Your task to perform on an android device: turn on airplane mode Image 0: 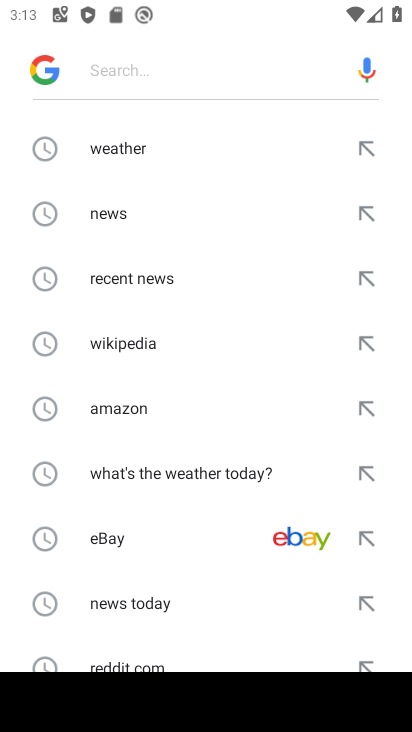
Step 0: press home button
Your task to perform on an android device: turn on airplane mode Image 1: 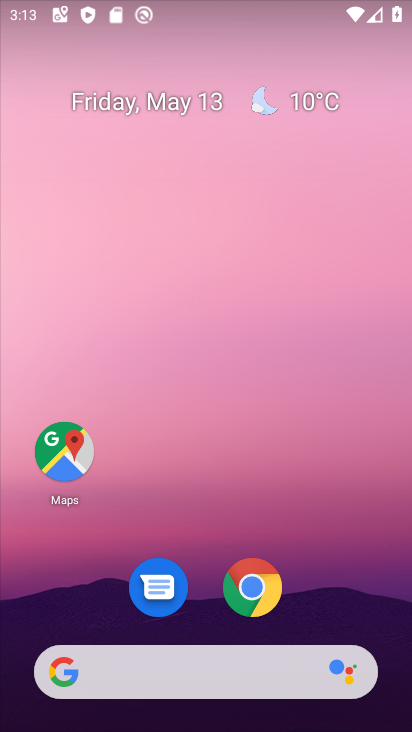
Step 1: drag from (207, 607) to (211, 29)
Your task to perform on an android device: turn on airplane mode Image 2: 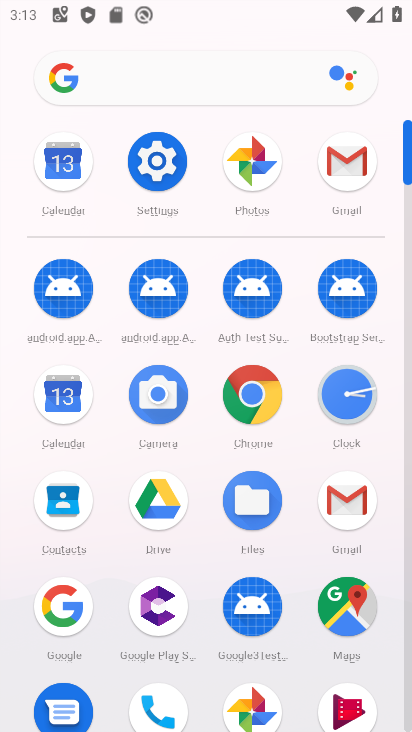
Step 2: click (166, 155)
Your task to perform on an android device: turn on airplane mode Image 3: 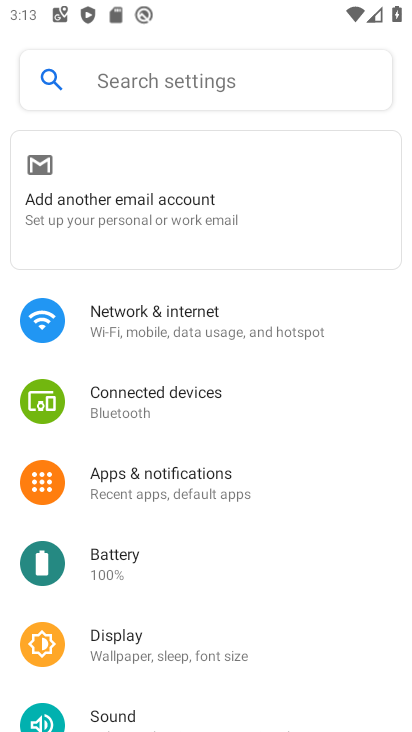
Step 3: click (156, 301)
Your task to perform on an android device: turn on airplane mode Image 4: 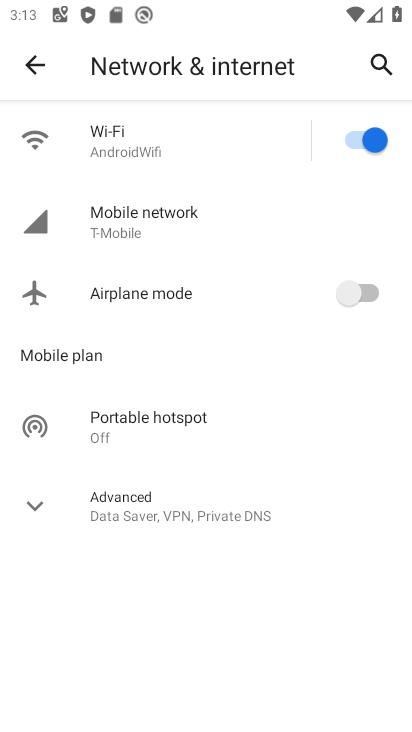
Step 4: click (326, 301)
Your task to perform on an android device: turn on airplane mode Image 5: 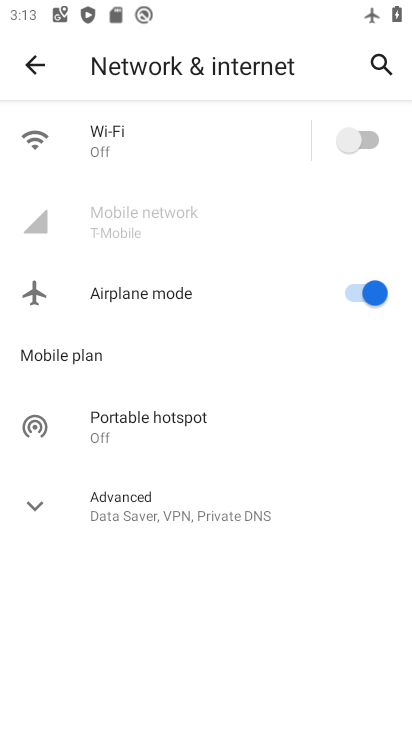
Step 5: task complete